Your task to perform on an android device: change notification settings in the gmail app Image 0: 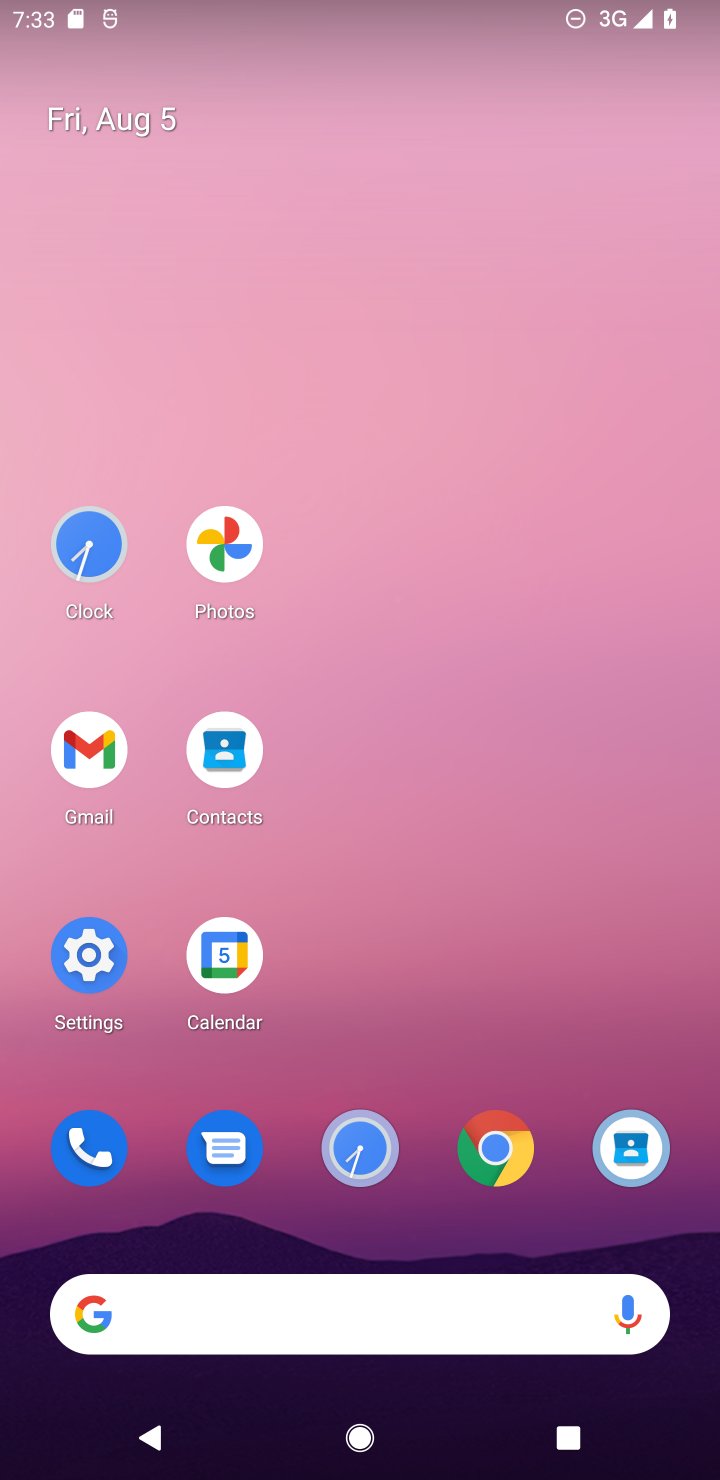
Step 0: click (55, 806)
Your task to perform on an android device: change notification settings in the gmail app Image 1: 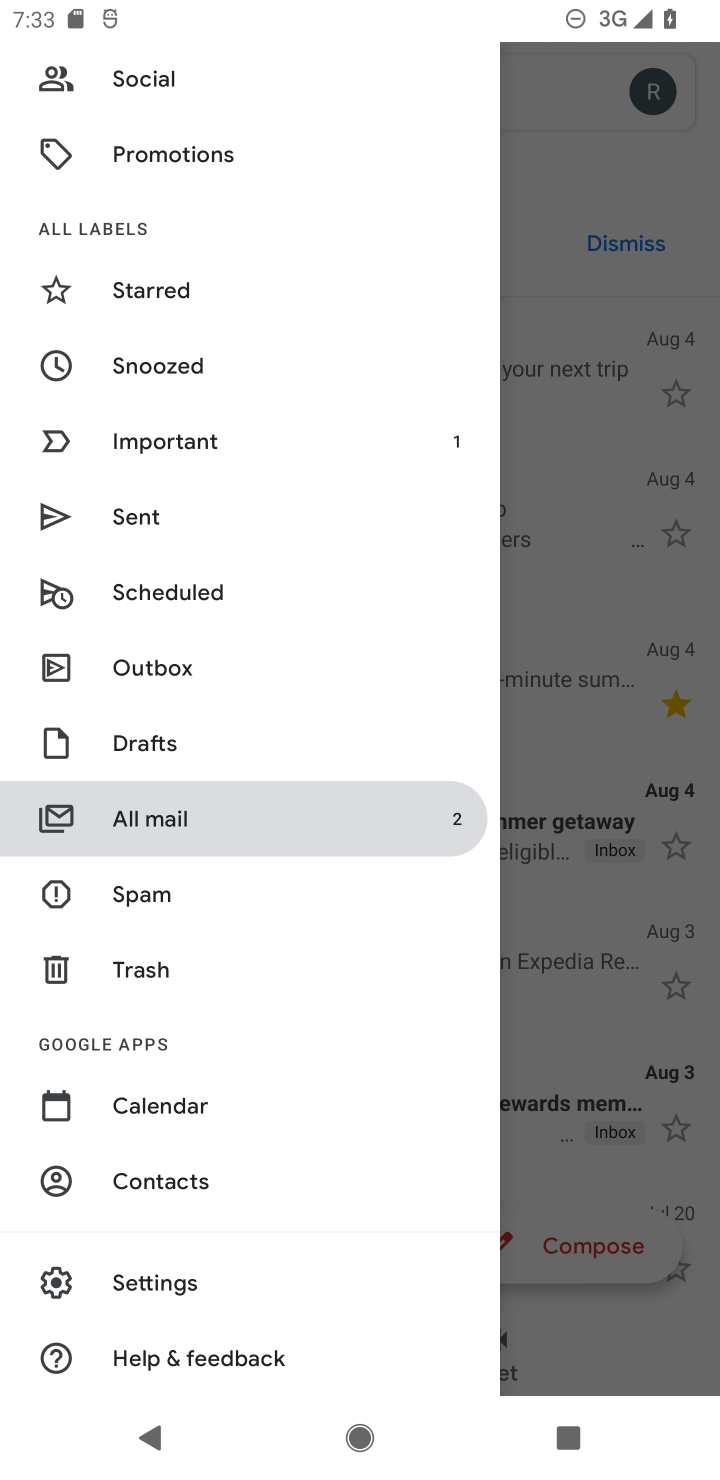
Step 1: click (157, 1261)
Your task to perform on an android device: change notification settings in the gmail app Image 2: 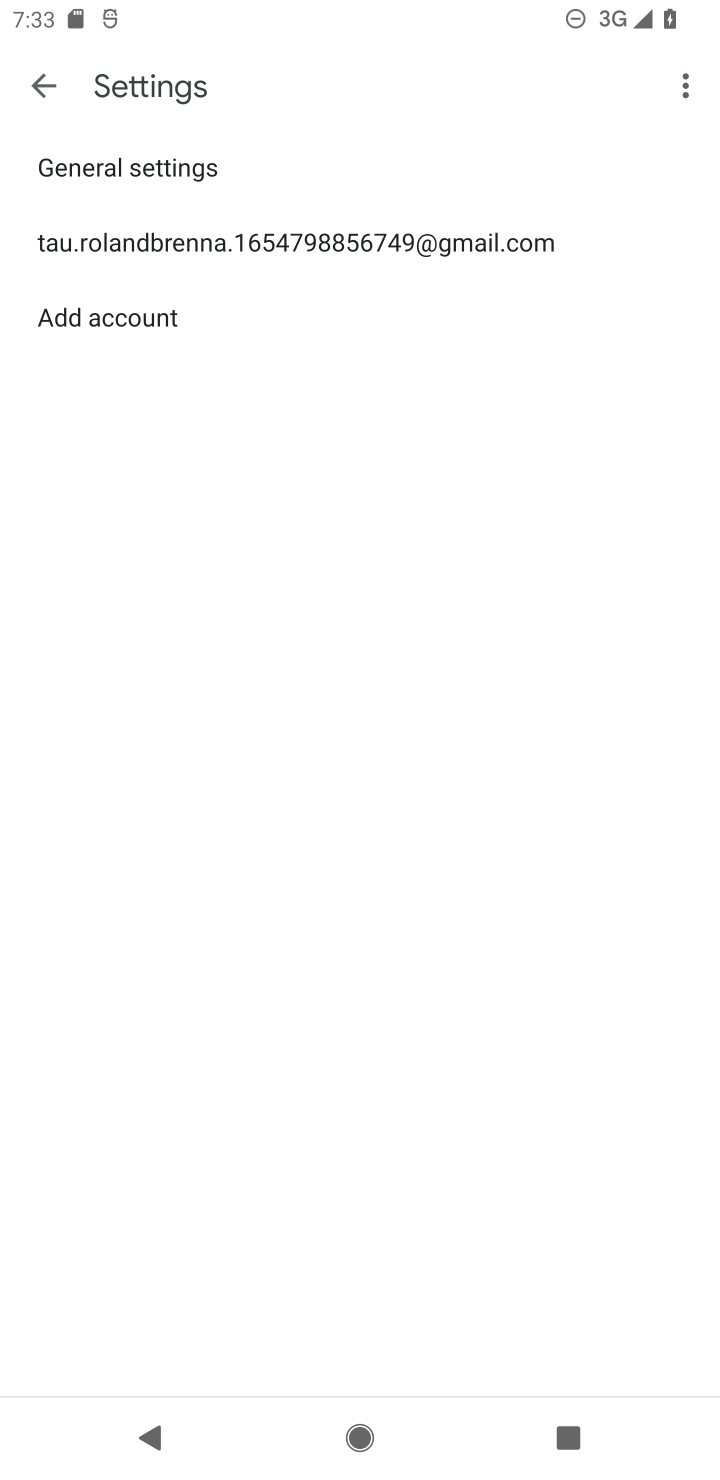
Step 2: click (105, 163)
Your task to perform on an android device: change notification settings in the gmail app Image 3: 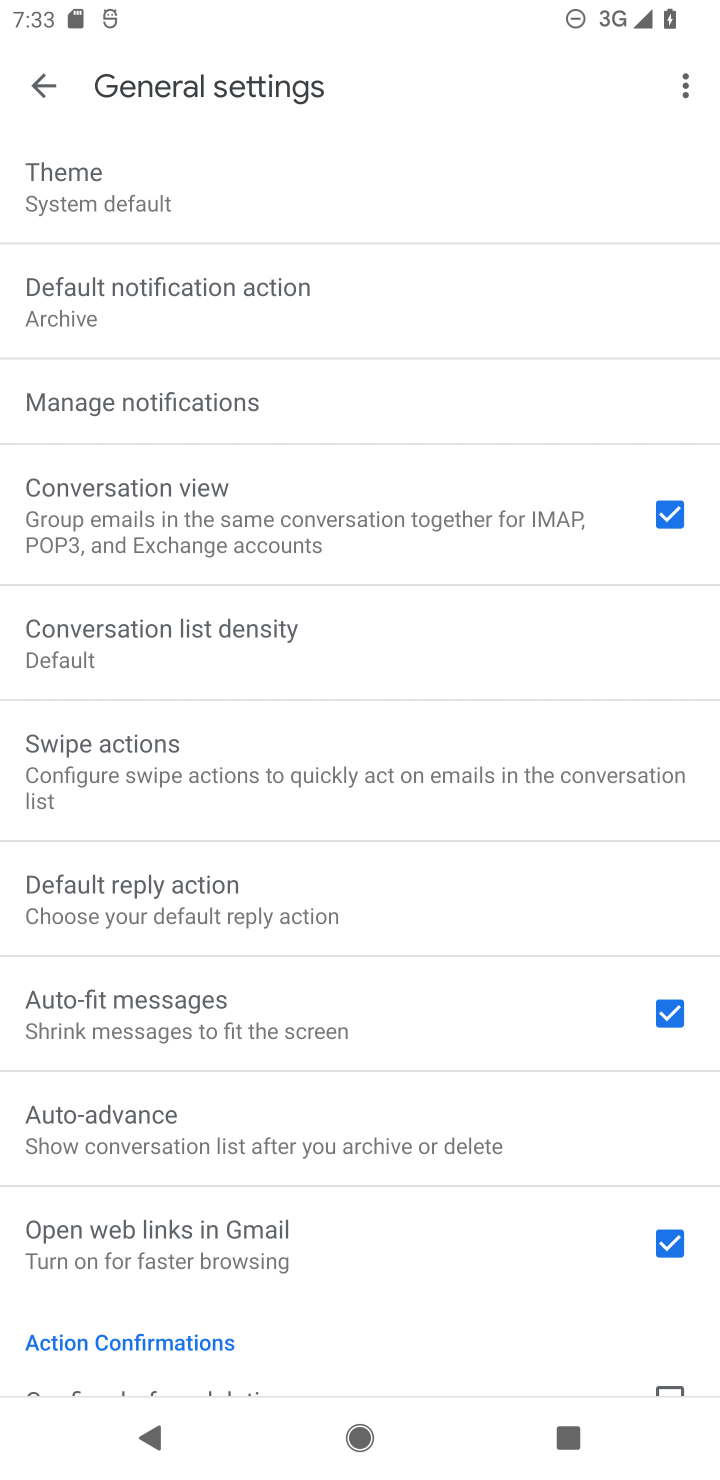
Step 3: click (148, 396)
Your task to perform on an android device: change notification settings in the gmail app Image 4: 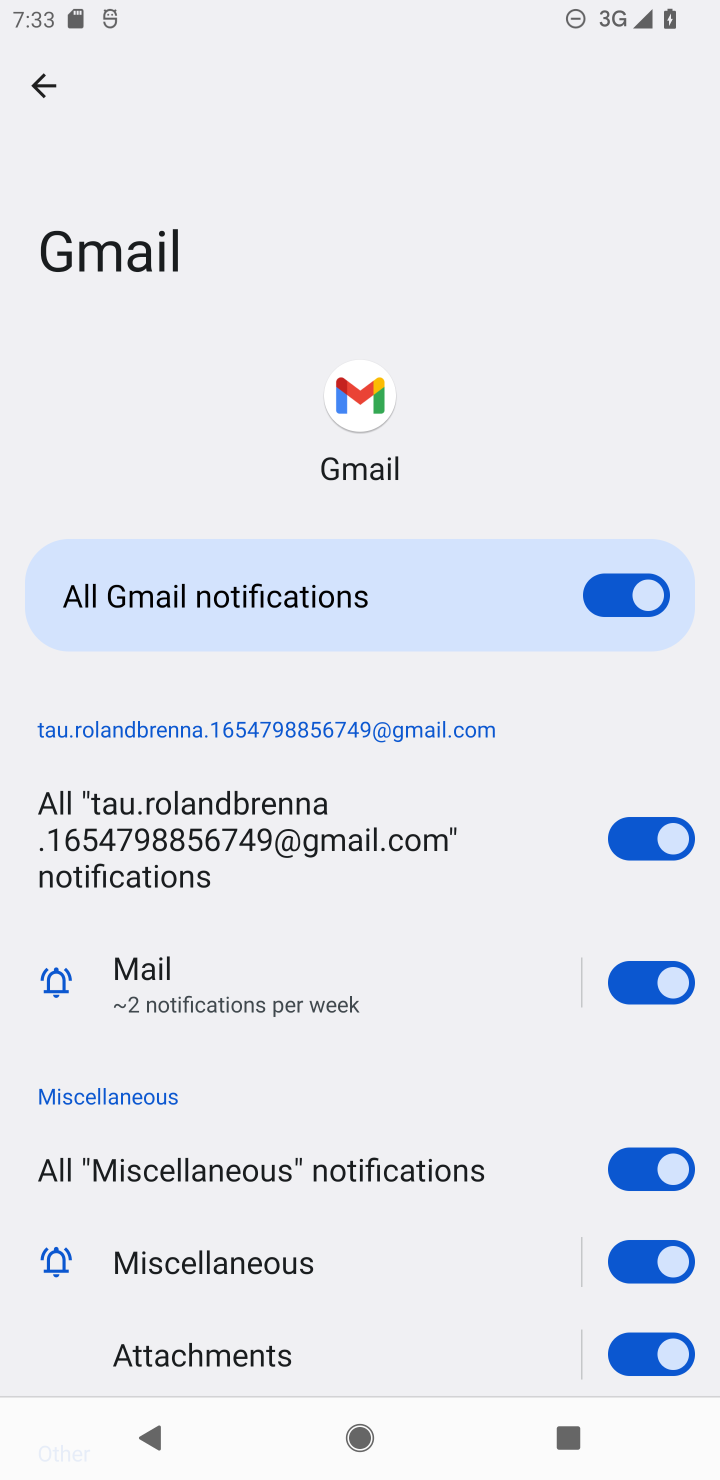
Step 4: click (628, 605)
Your task to perform on an android device: change notification settings in the gmail app Image 5: 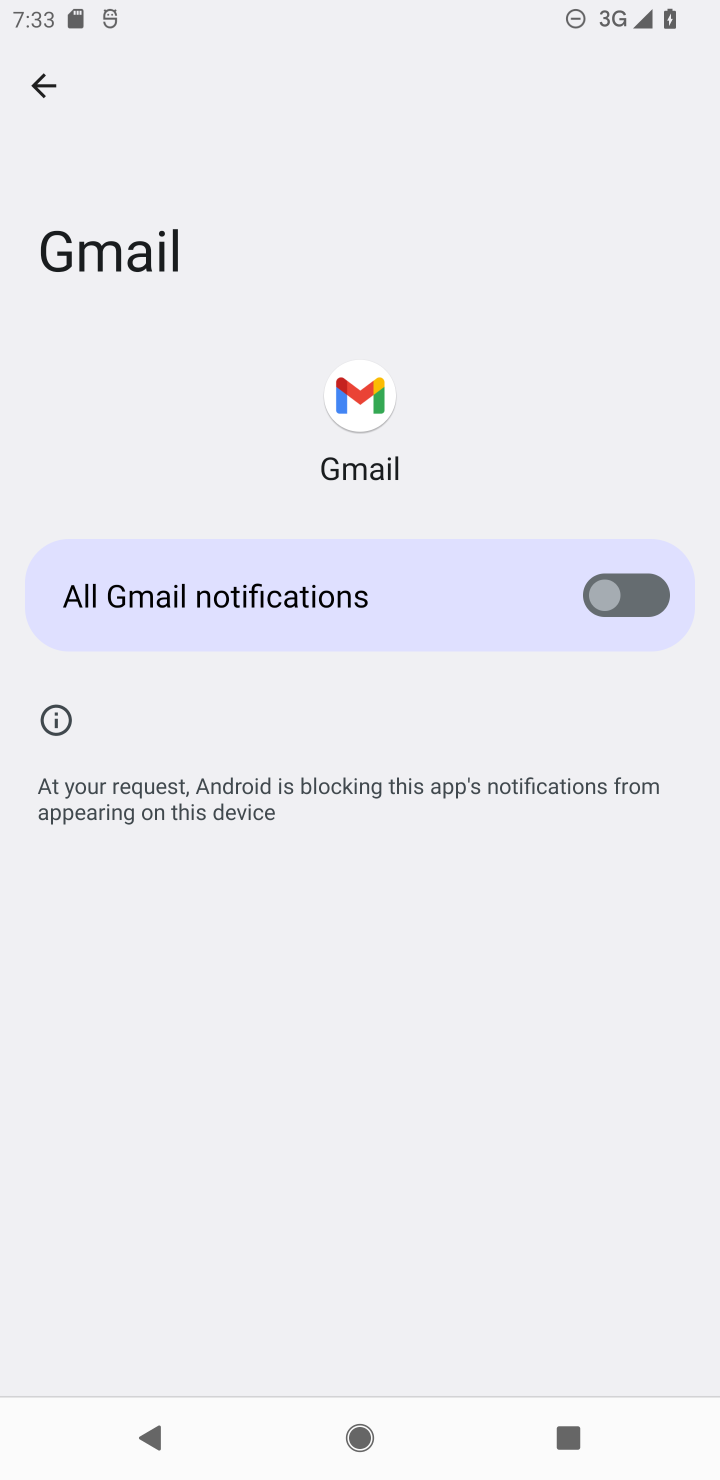
Step 5: task complete